Your task to perform on an android device: turn off data saver in the chrome app Image 0: 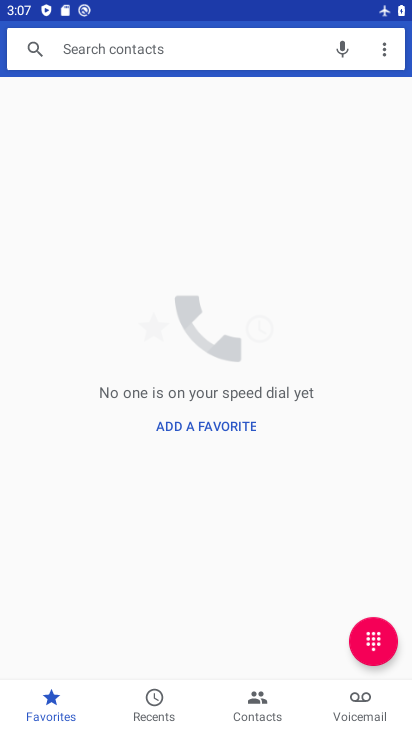
Step 0: press home button
Your task to perform on an android device: turn off data saver in the chrome app Image 1: 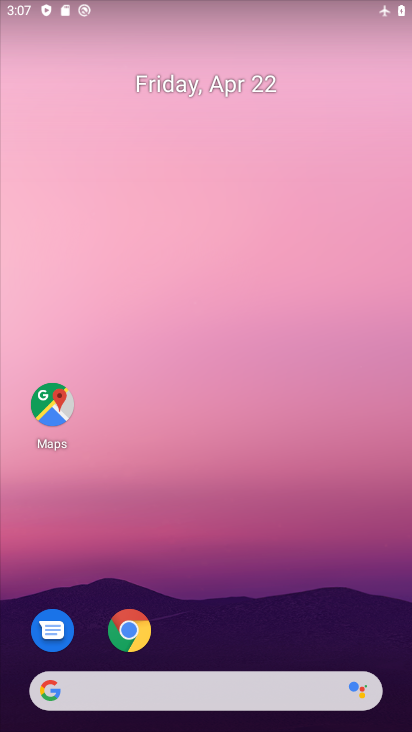
Step 1: drag from (189, 618) to (303, 133)
Your task to perform on an android device: turn off data saver in the chrome app Image 2: 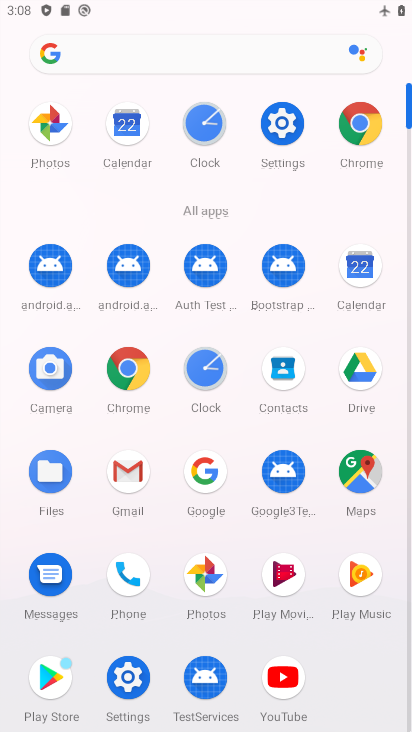
Step 2: click (127, 363)
Your task to perform on an android device: turn off data saver in the chrome app Image 3: 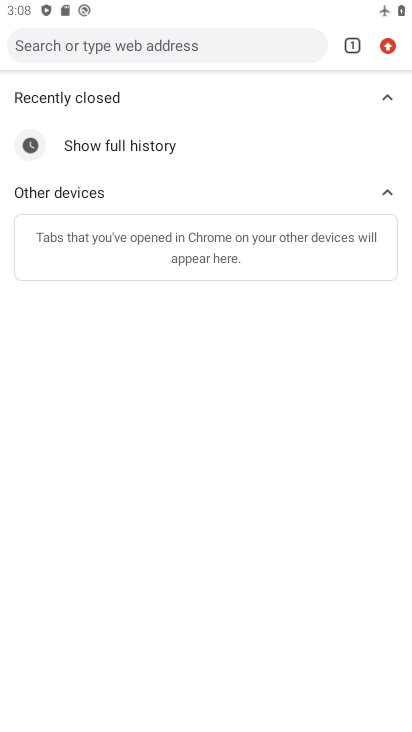
Step 3: click (386, 47)
Your task to perform on an android device: turn off data saver in the chrome app Image 4: 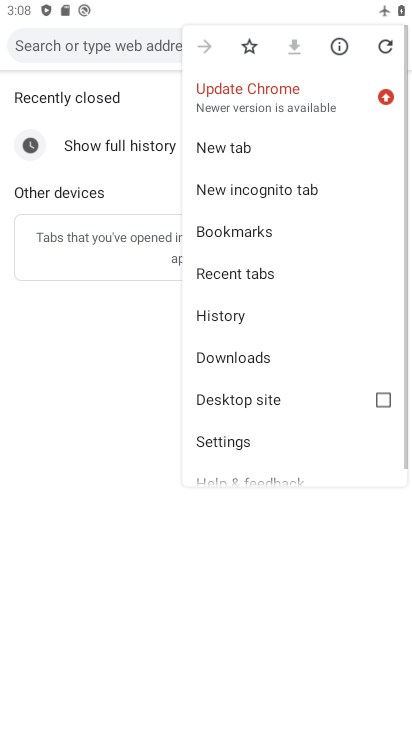
Step 4: click (234, 442)
Your task to perform on an android device: turn off data saver in the chrome app Image 5: 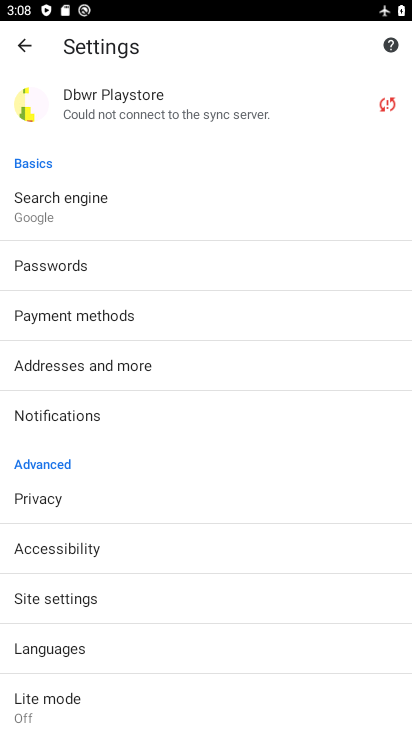
Step 5: drag from (111, 594) to (204, 325)
Your task to perform on an android device: turn off data saver in the chrome app Image 6: 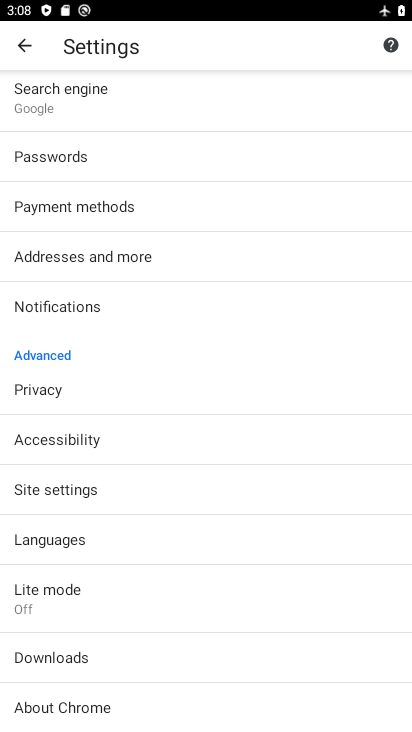
Step 6: click (44, 599)
Your task to perform on an android device: turn off data saver in the chrome app Image 7: 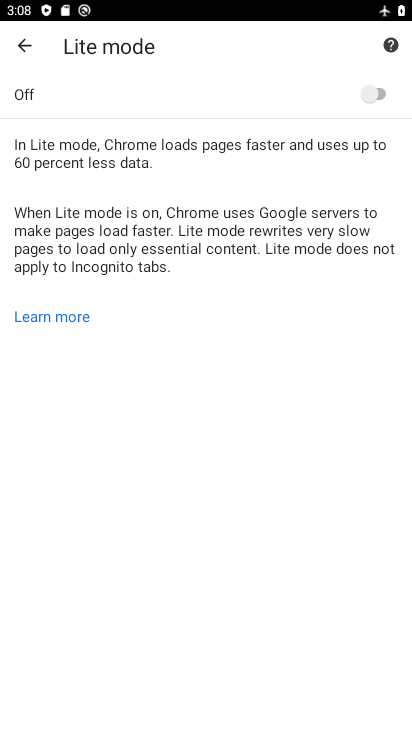
Step 7: task complete